Your task to perform on an android device: toggle translation in the chrome app Image 0: 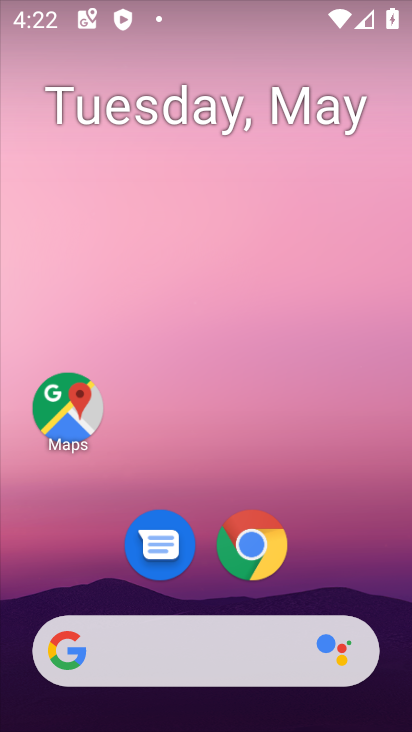
Step 0: click (251, 545)
Your task to perform on an android device: toggle translation in the chrome app Image 1: 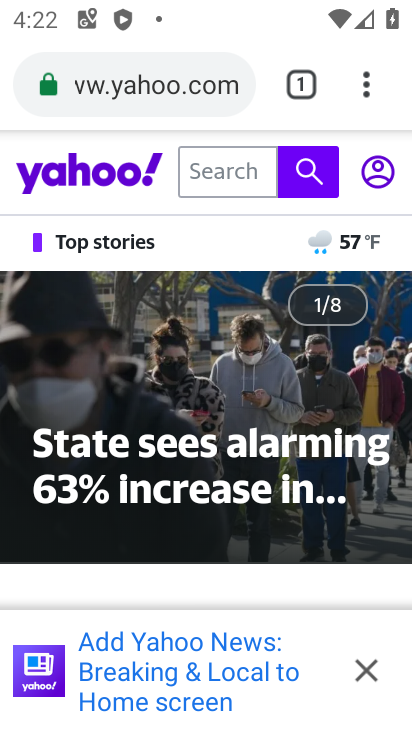
Step 1: click (366, 85)
Your task to perform on an android device: toggle translation in the chrome app Image 2: 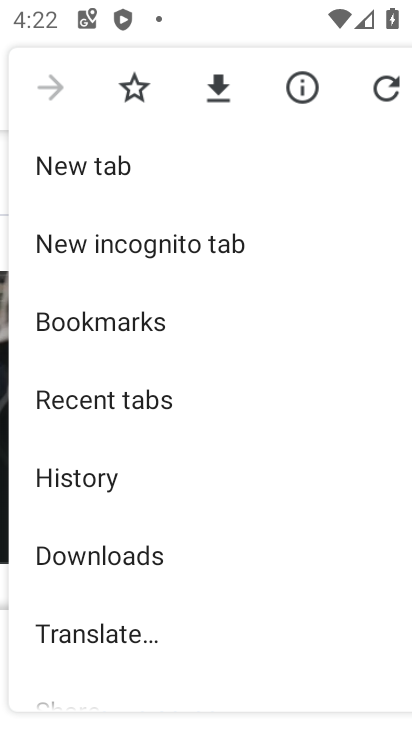
Step 2: drag from (170, 501) to (216, 384)
Your task to perform on an android device: toggle translation in the chrome app Image 3: 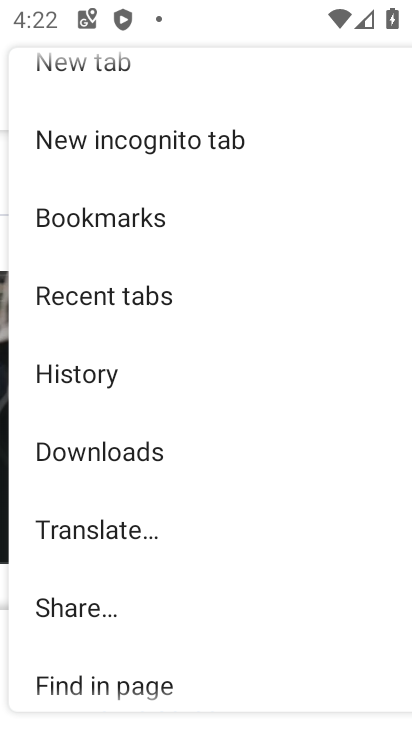
Step 3: drag from (131, 573) to (208, 466)
Your task to perform on an android device: toggle translation in the chrome app Image 4: 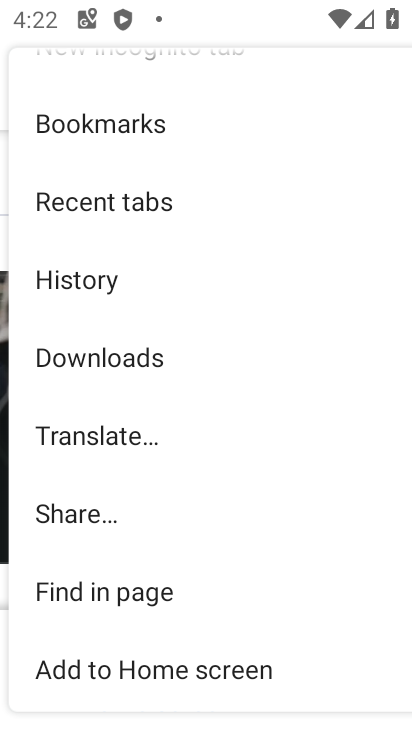
Step 4: drag from (137, 618) to (215, 503)
Your task to perform on an android device: toggle translation in the chrome app Image 5: 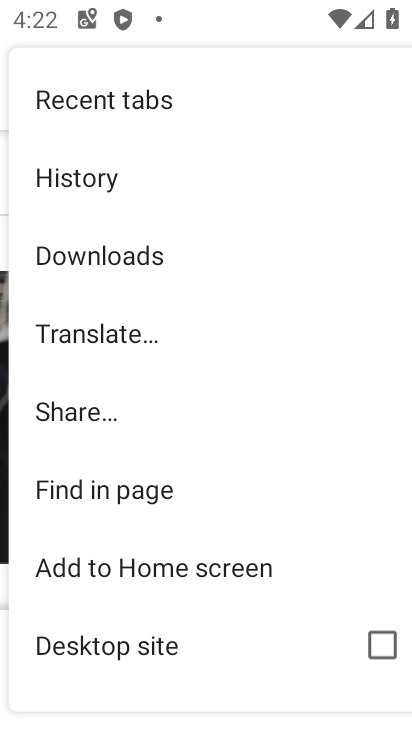
Step 5: drag from (133, 604) to (208, 497)
Your task to perform on an android device: toggle translation in the chrome app Image 6: 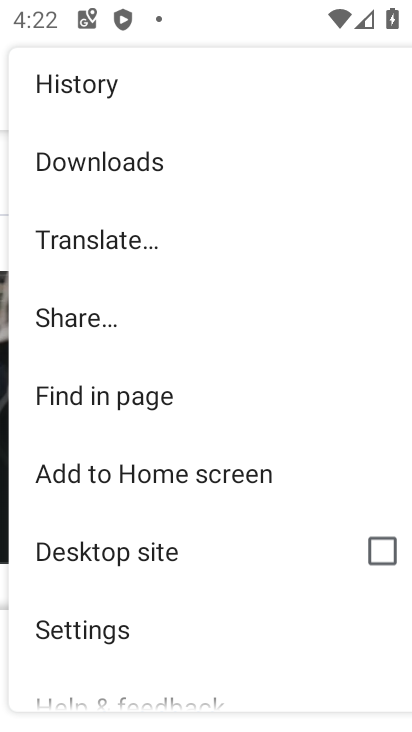
Step 6: drag from (123, 585) to (175, 471)
Your task to perform on an android device: toggle translation in the chrome app Image 7: 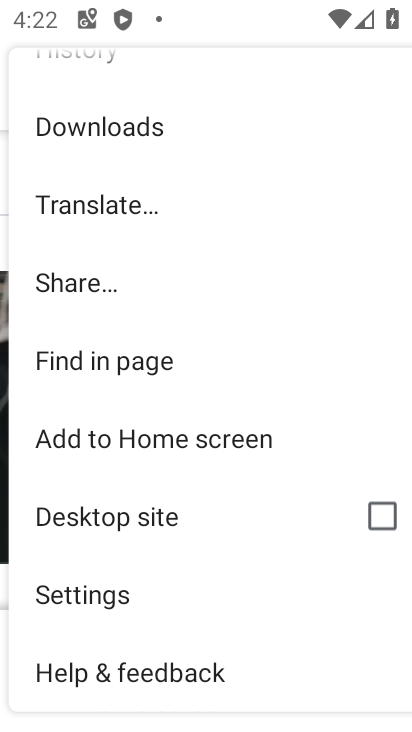
Step 7: click (100, 587)
Your task to perform on an android device: toggle translation in the chrome app Image 8: 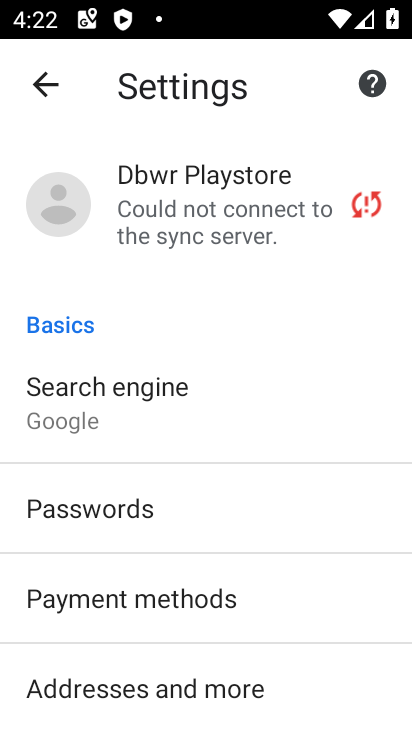
Step 8: drag from (128, 562) to (181, 426)
Your task to perform on an android device: toggle translation in the chrome app Image 9: 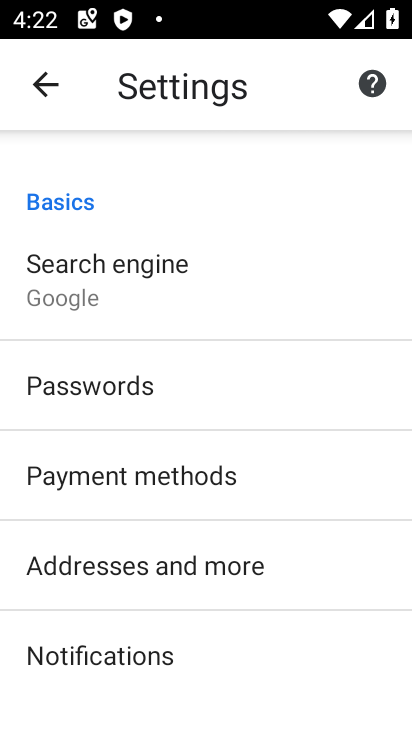
Step 9: drag from (175, 651) to (204, 499)
Your task to perform on an android device: toggle translation in the chrome app Image 10: 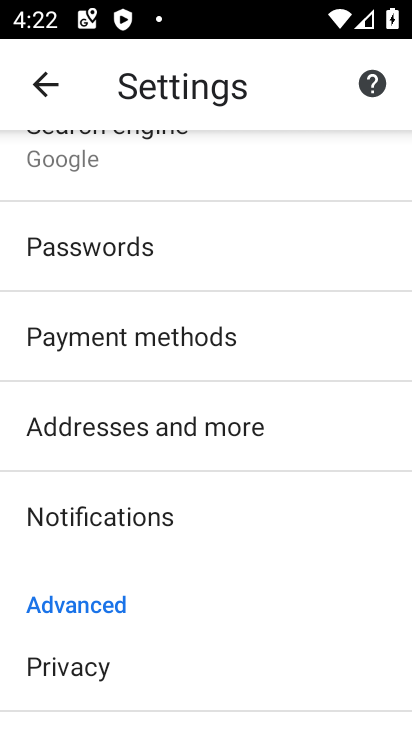
Step 10: drag from (172, 606) to (250, 443)
Your task to perform on an android device: toggle translation in the chrome app Image 11: 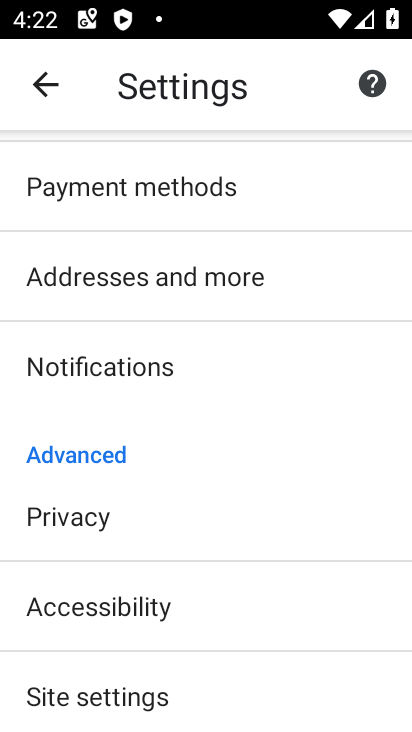
Step 11: drag from (189, 646) to (310, 353)
Your task to perform on an android device: toggle translation in the chrome app Image 12: 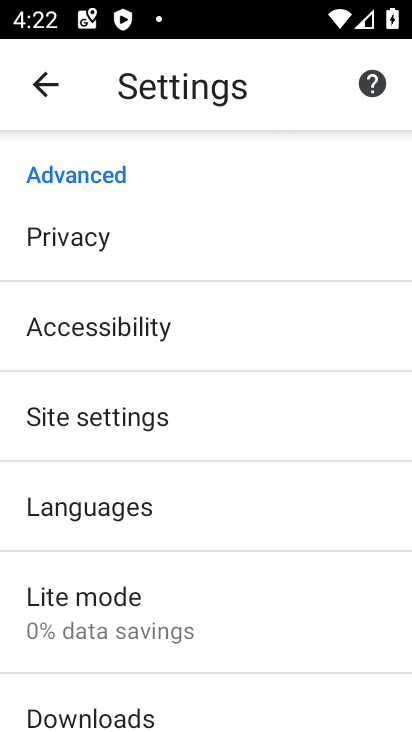
Step 12: click (108, 520)
Your task to perform on an android device: toggle translation in the chrome app Image 13: 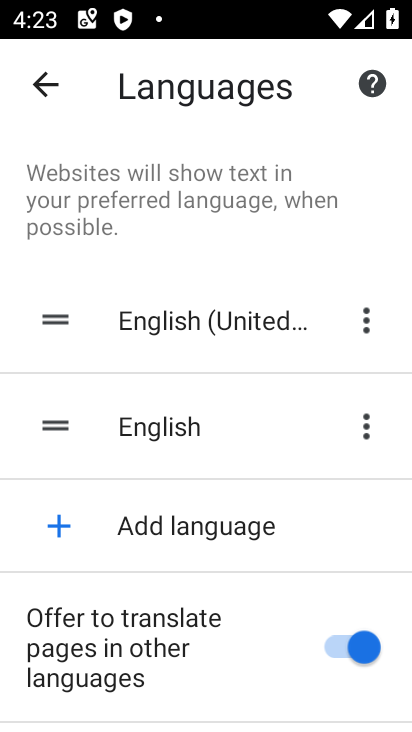
Step 13: click (329, 646)
Your task to perform on an android device: toggle translation in the chrome app Image 14: 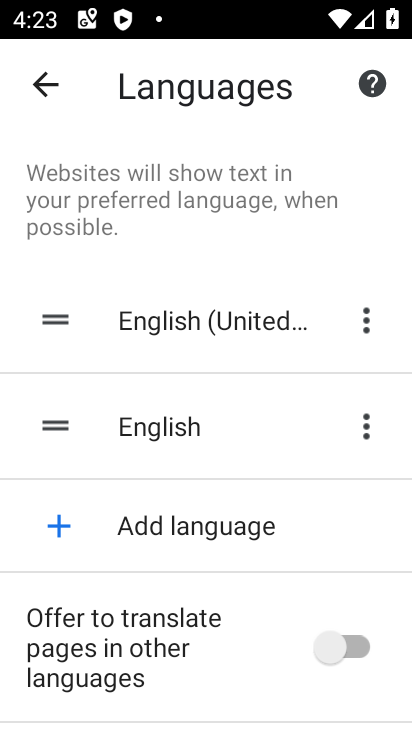
Step 14: task complete